Your task to perform on an android device: change the clock display to show seconds Image 0: 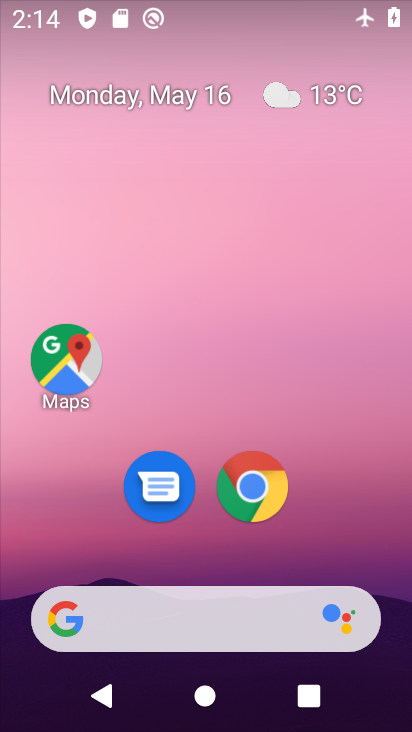
Step 0: drag from (364, 516) to (297, 40)
Your task to perform on an android device: change the clock display to show seconds Image 1: 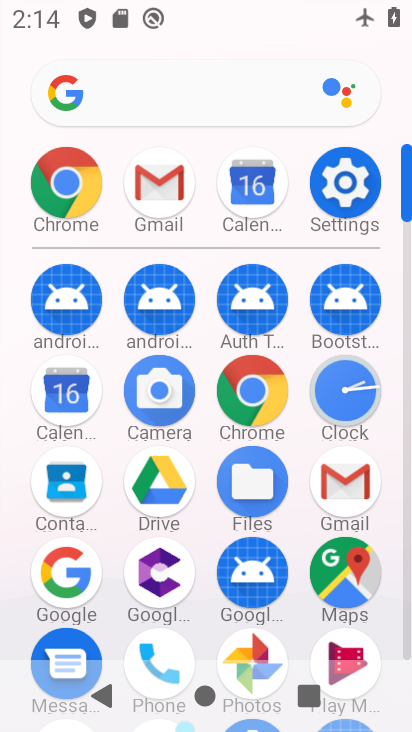
Step 1: click (364, 408)
Your task to perform on an android device: change the clock display to show seconds Image 2: 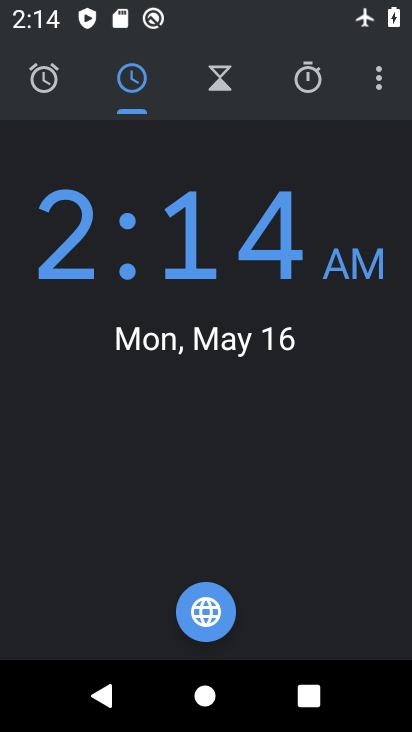
Step 2: click (391, 76)
Your task to perform on an android device: change the clock display to show seconds Image 3: 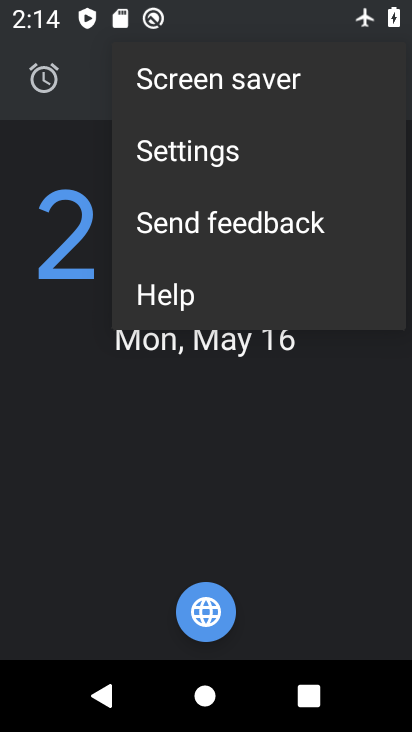
Step 3: click (171, 157)
Your task to perform on an android device: change the clock display to show seconds Image 4: 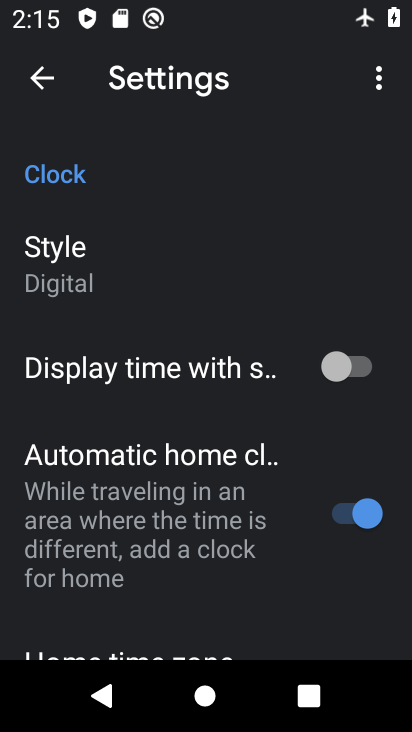
Step 4: click (360, 375)
Your task to perform on an android device: change the clock display to show seconds Image 5: 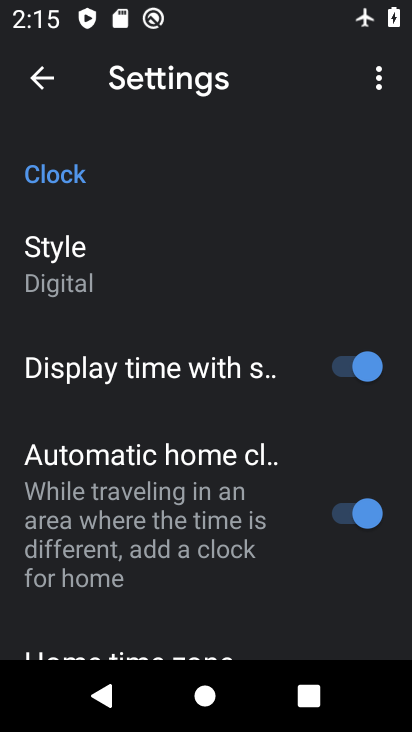
Step 5: task complete